Your task to perform on an android device: turn on javascript in the chrome app Image 0: 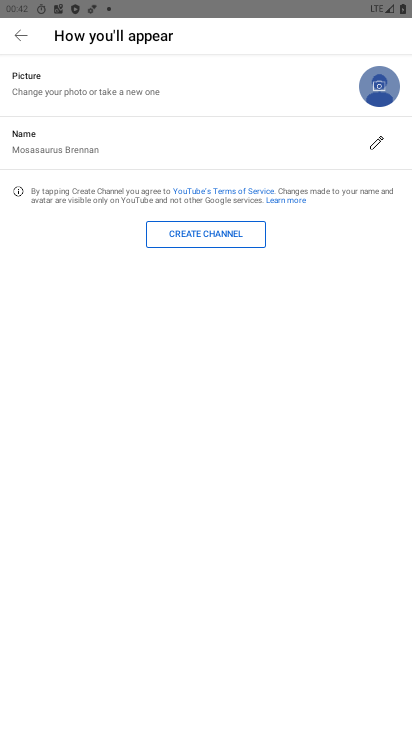
Step 0: press home button
Your task to perform on an android device: turn on javascript in the chrome app Image 1: 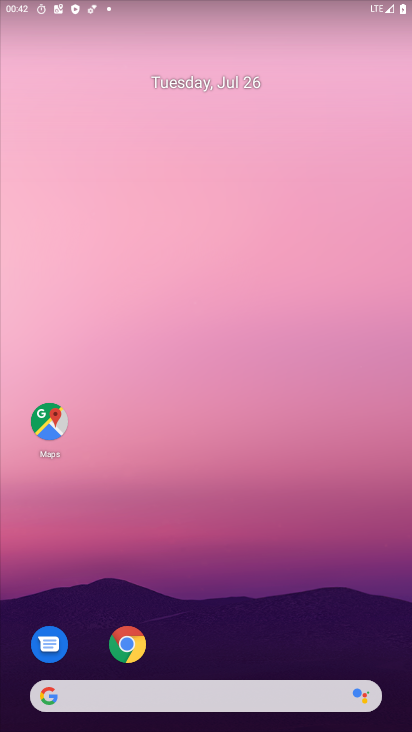
Step 1: click (141, 654)
Your task to perform on an android device: turn on javascript in the chrome app Image 2: 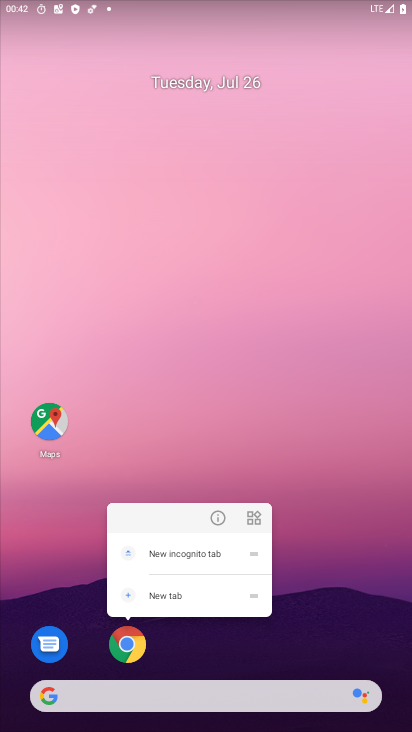
Step 2: click (134, 651)
Your task to perform on an android device: turn on javascript in the chrome app Image 3: 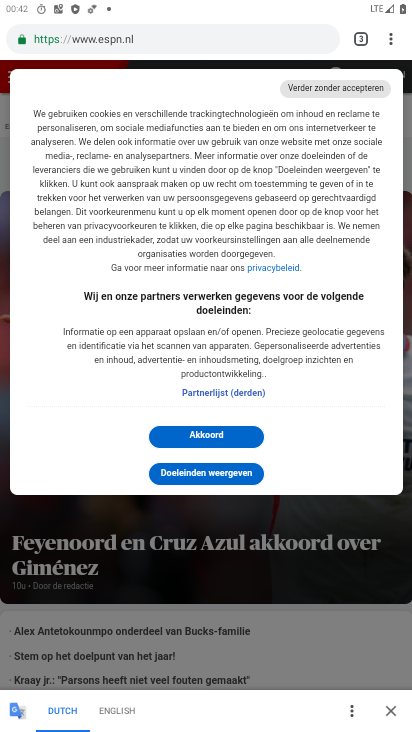
Step 3: drag from (390, 42) to (264, 467)
Your task to perform on an android device: turn on javascript in the chrome app Image 4: 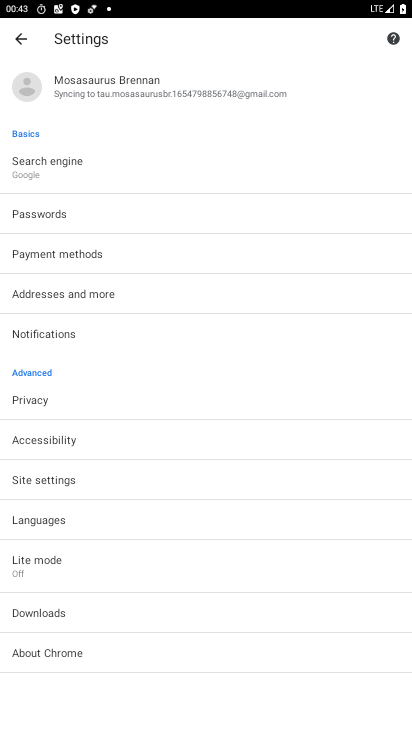
Step 4: click (37, 479)
Your task to perform on an android device: turn on javascript in the chrome app Image 5: 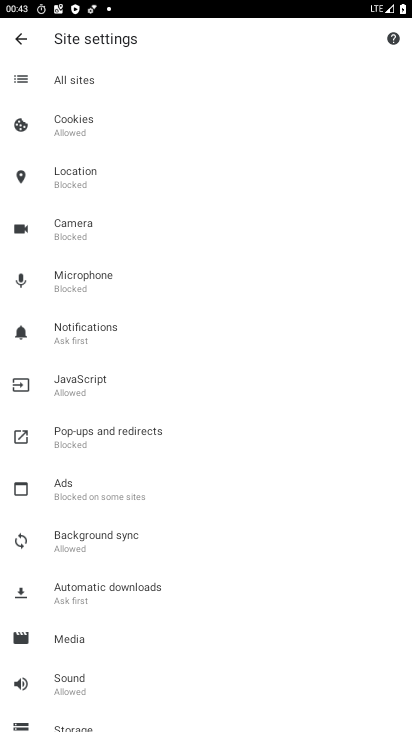
Step 5: click (69, 381)
Your task to perform on an android device: turn on javascript in the chrome app Image 6: 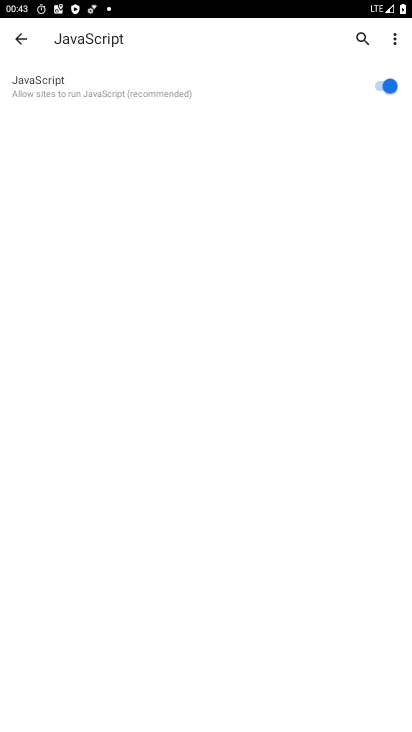
Step 6: task complete